Your task to perform on an android device: check storage Image 0: 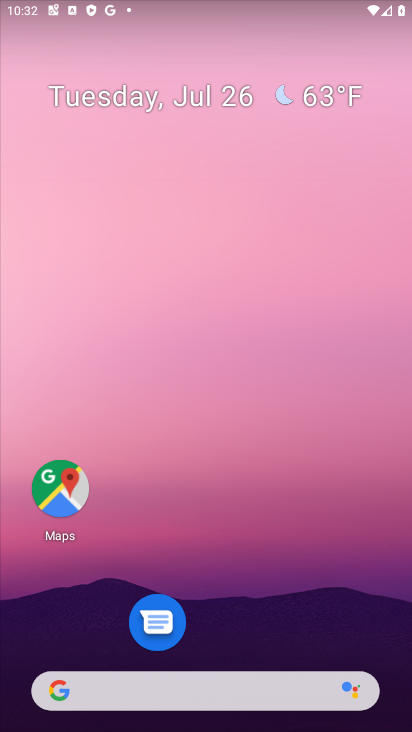
Step 0: drag from (290, 553) to (411, 97)
Your task to perform on an android device: check storage Image 1: 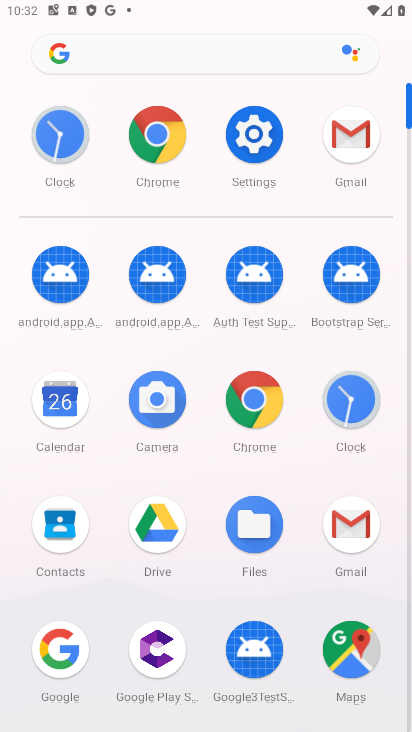
Step 1: click (252, 151)
Your task to perform on an android device: check storage Image 2: 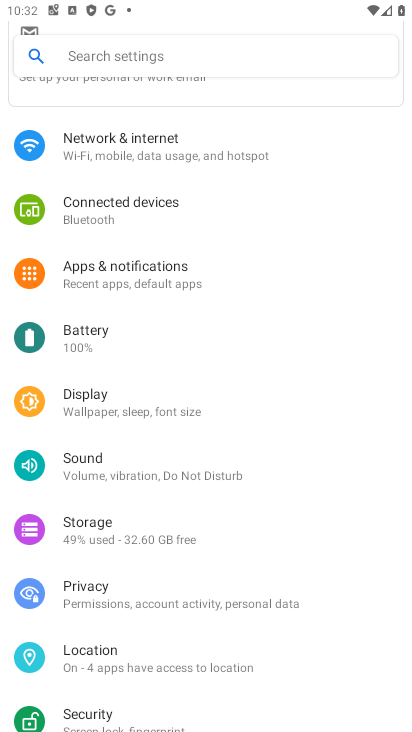
Step 2: click (125, 536)
Your task to perform on an android device: check storage Image 3: 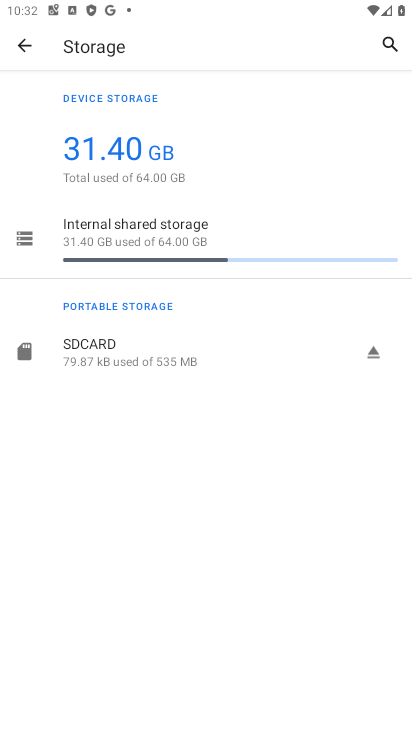
Step 3: task complete